Your task to perform on an android device: When is my next meeting? Image 0: 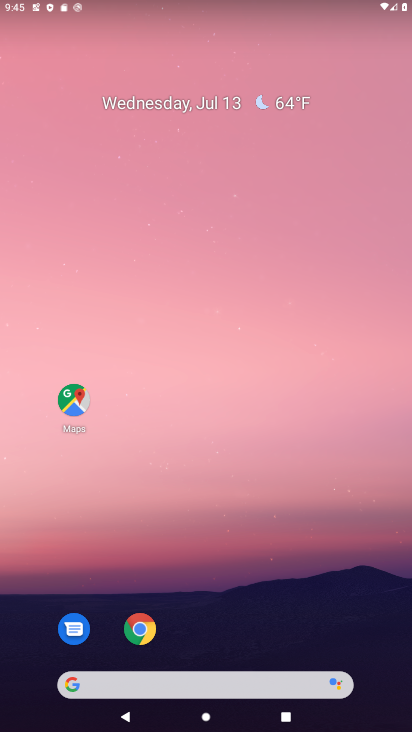
Step 0: drag from (276, 637) to (233, 204)
Your task to perform on an android device: When is my next meeting? Image 1: 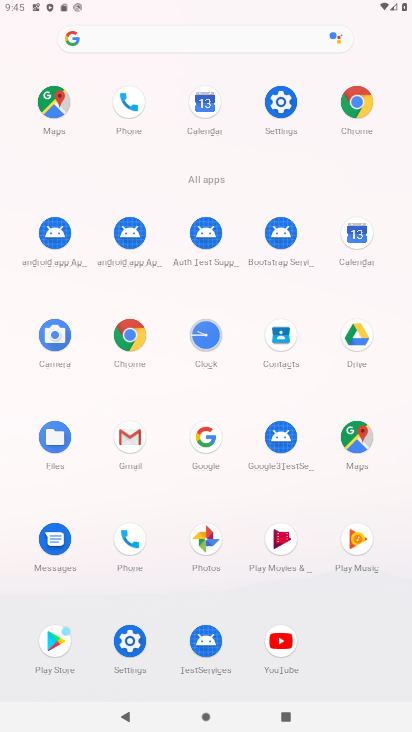
Step 1: click (351, 227)
Your task to perform on an android device: When is my next meeting? Image 2: 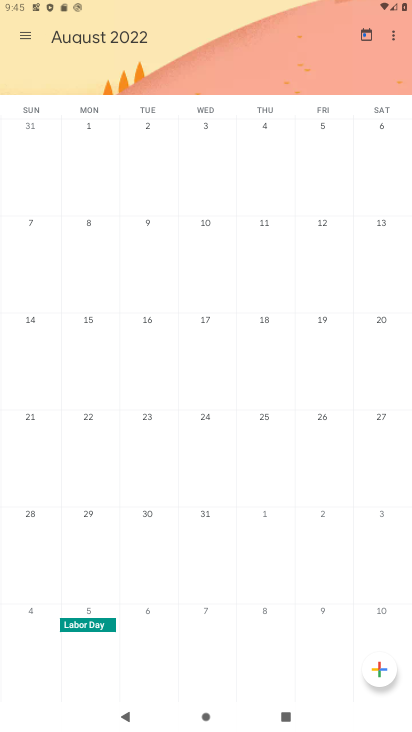
Step 2: drag from (23, 203) to (392, 307)
Your task to perform on an android device: When is my next meeting? Image 3: 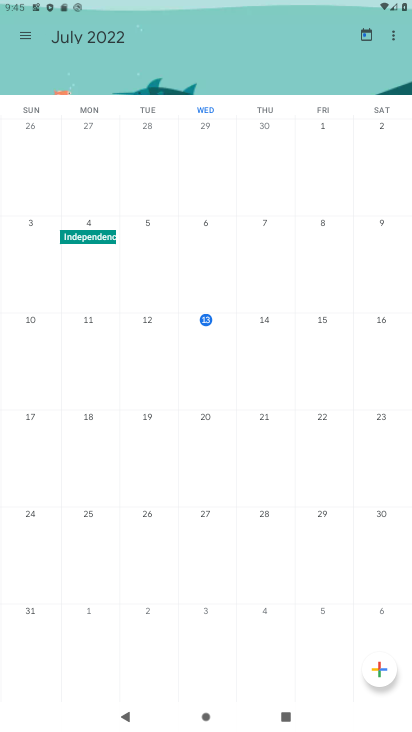
Step 3: click (327, 337)
Your task to perform on an android device: When is my next meeting? Image 4: 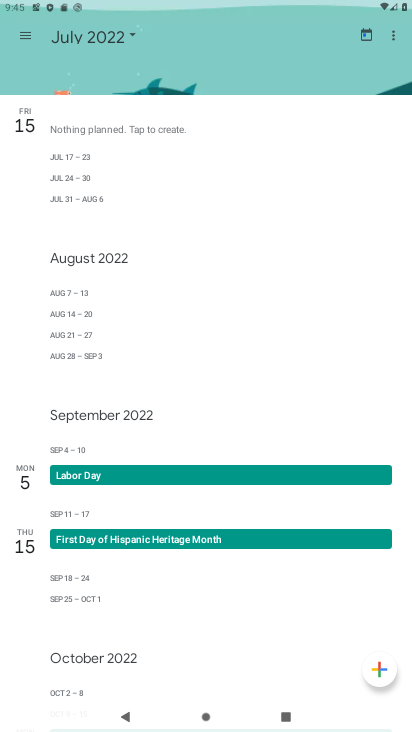
Step 4: task complete